Your task to perform on an android device: change your default location settings in chrome Image 0: 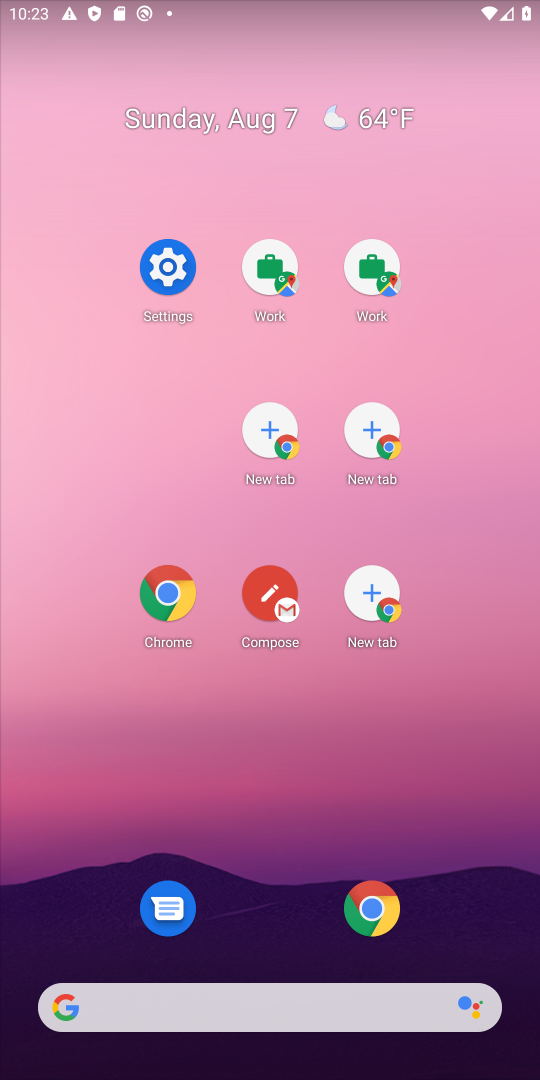
Step 0: drag from (278, 874) to (303, 430)
Your task to perform on an android device: change your default location settings in chrome Image 1: 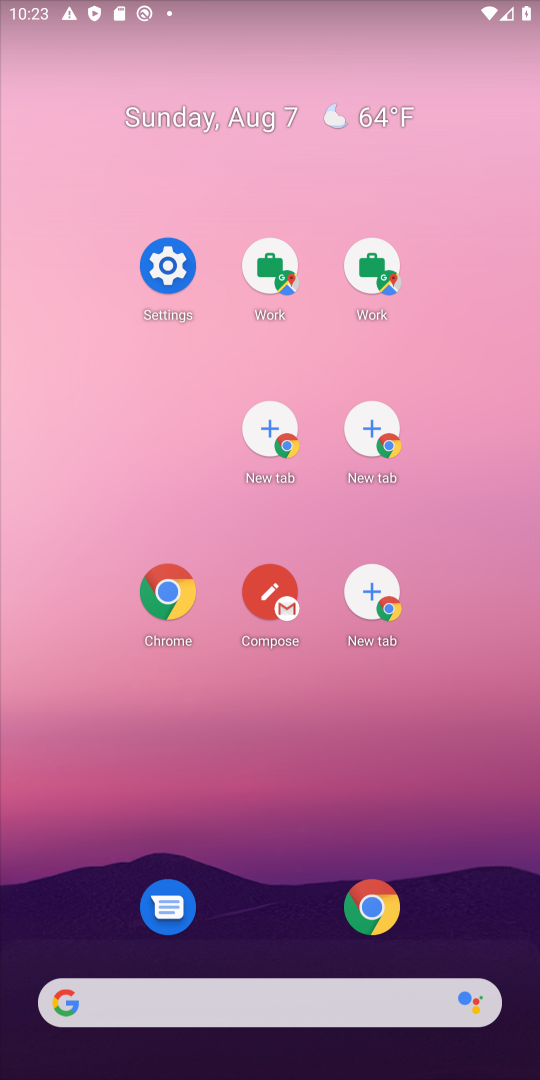
Step 1: drag from (319, 871) to (266, 380)
Your task to perform on an android device: change your default location settings in chrome Image 2: 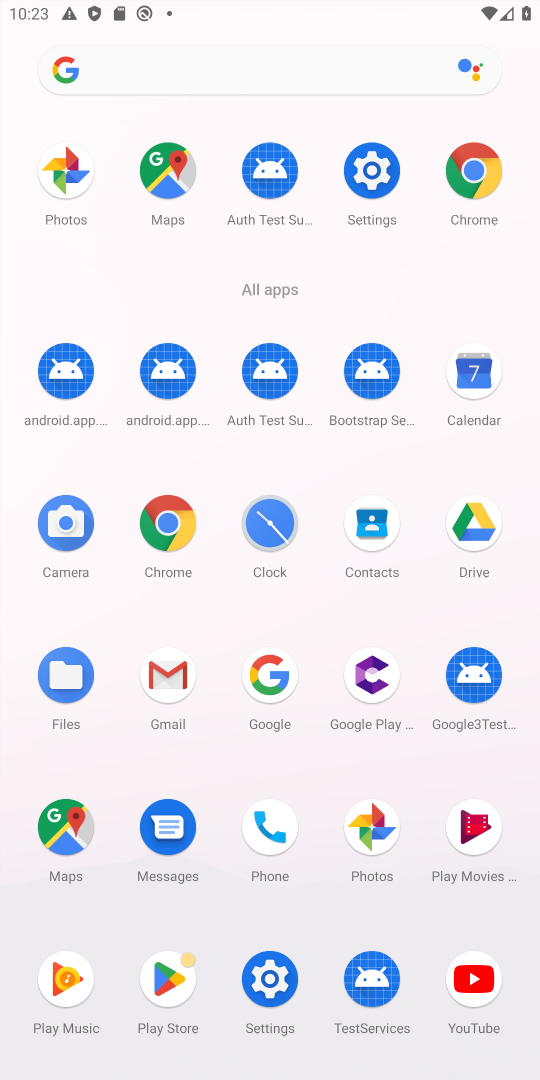
Step 2: click (147, 503)
Your task to perform on an android device: change your default location settings in chrome Image 3: 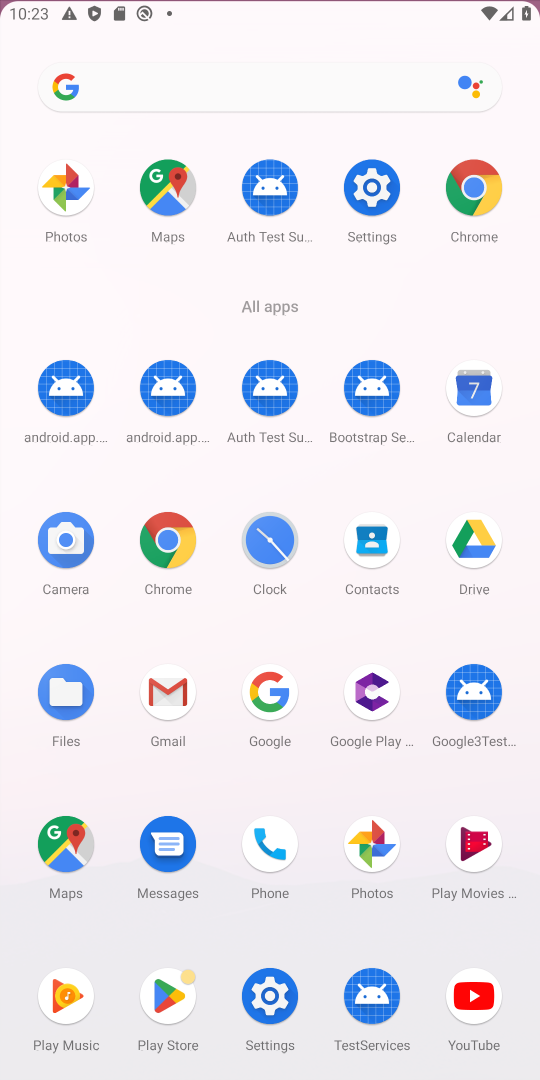
Step 3: click (172, 529)
Your task to perform on an android device: change your default location settings in chrome Image 4: 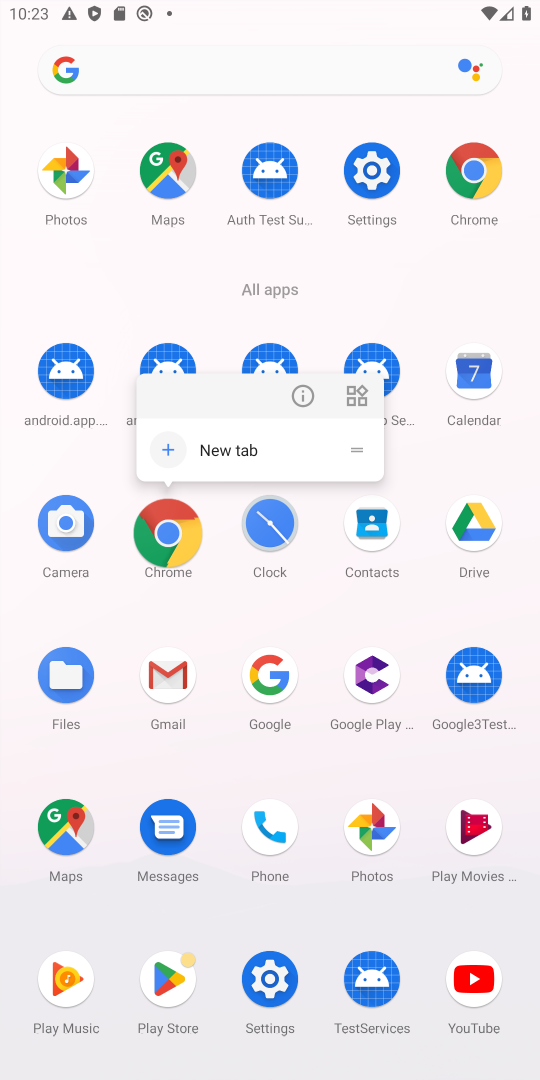
Step 4: click (182, 534)
Your task to perform on an android device: change your default location settings in chrome Image 5: 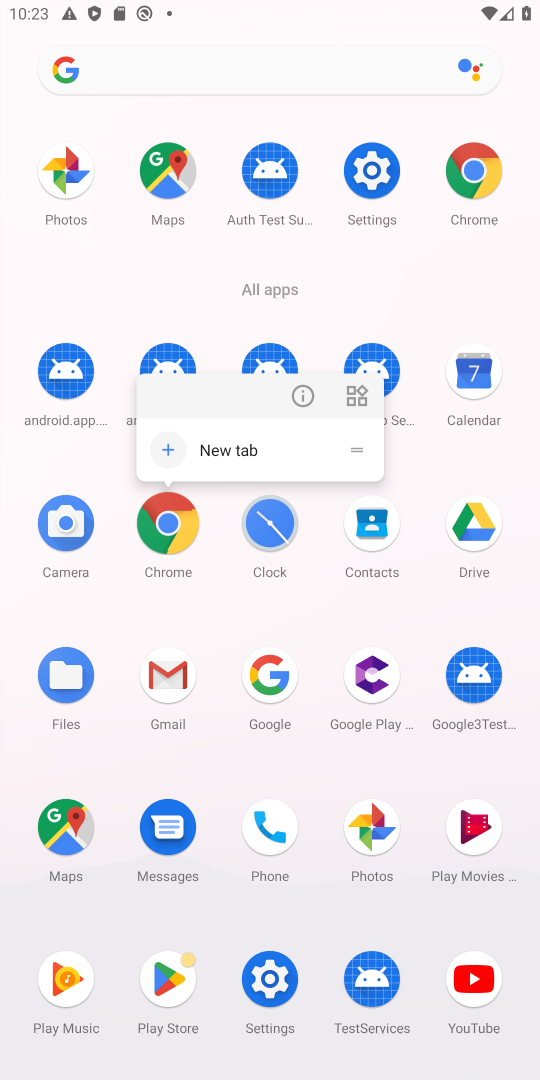
Step 5: click (232, 449)
Your task to perform on an android device: change your default location settings in chrome Image 6: 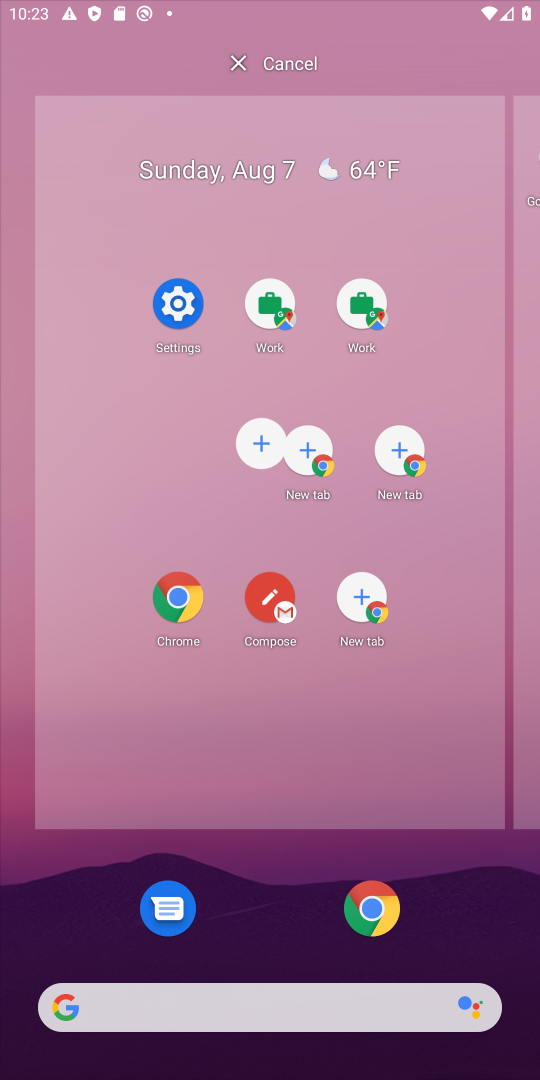
Step 6: click (167, 595)
Your task to perform on an android device: change your default location settings in chrome Image 7: 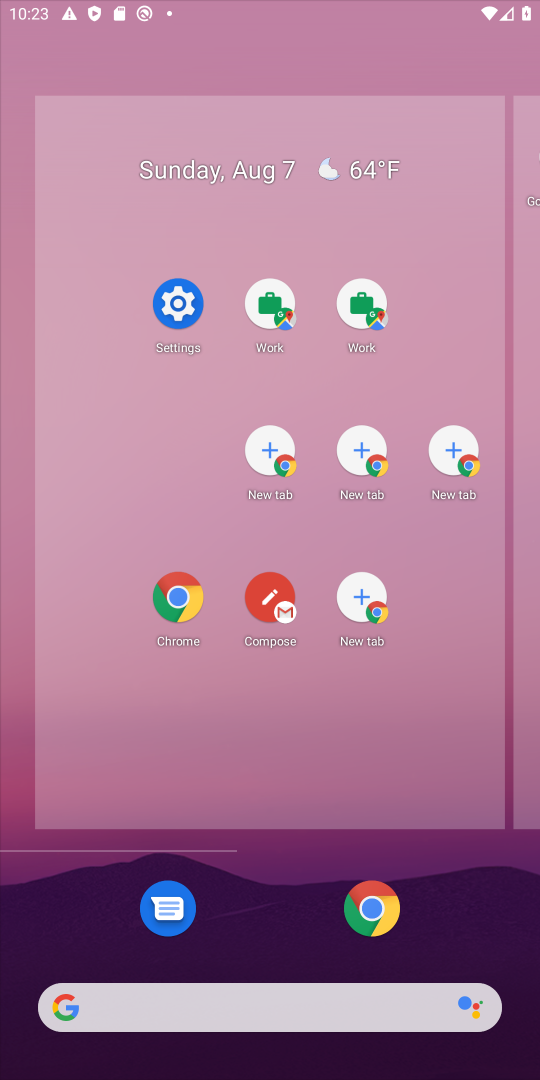
Step 7: click (247, 51)
Your task to perform on an android device: change your default location settings in chrome Image 8: 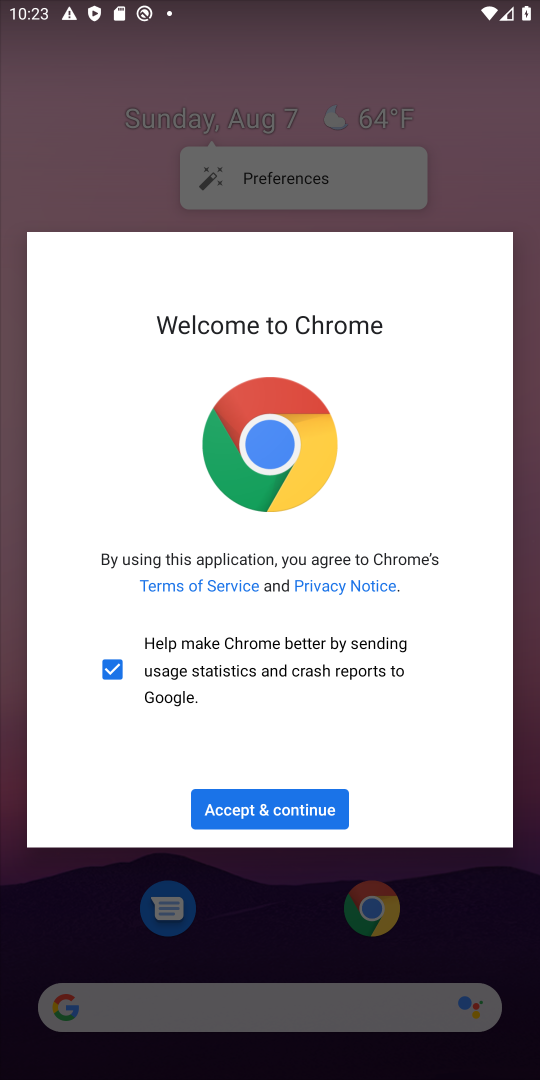
Step 8: click (269, 809)
Your task to perform on an android device: change your default location settings in chrome Image 9: 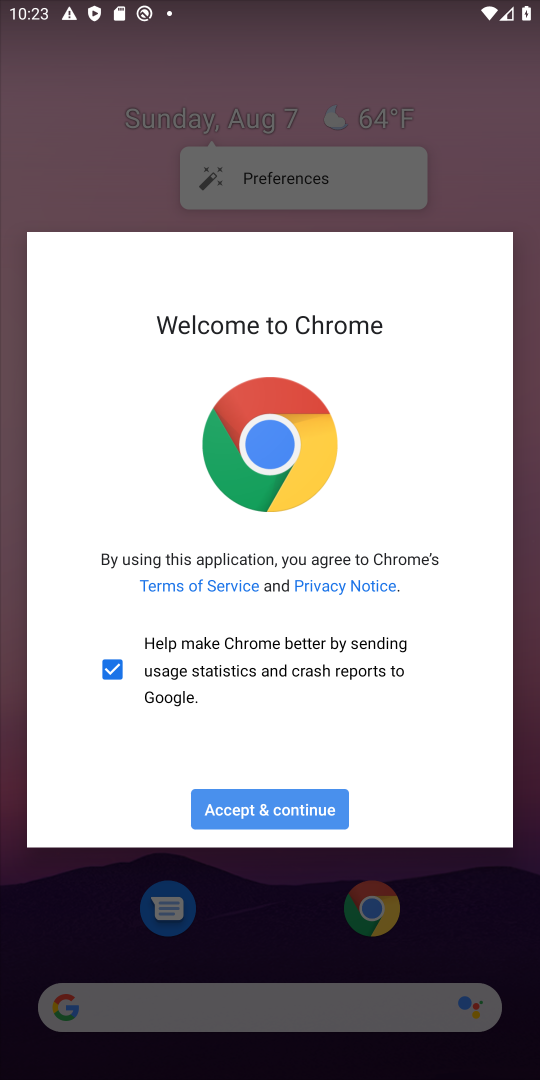
Step 9: click (266, 808)
Your task to perform on an android device: change your default location settings in chrome Image 10: 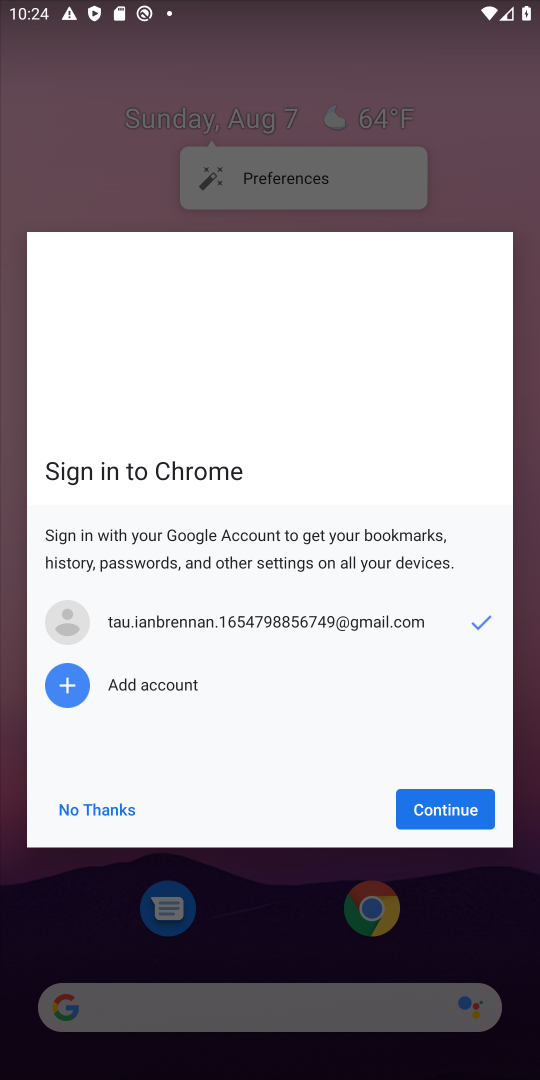
Step 10: click (84, 807)
Your task to perform on an android device: change your default location settings in chrome Image 11: 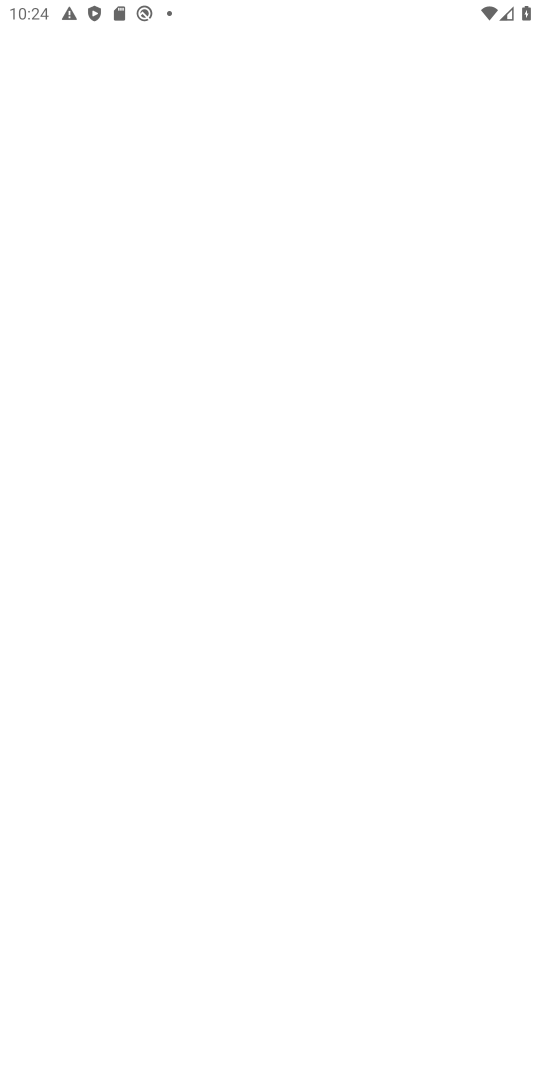
Step 11: click (78, 806)
Your task to perform on an android device: change your default location settings in chrome Image 12: 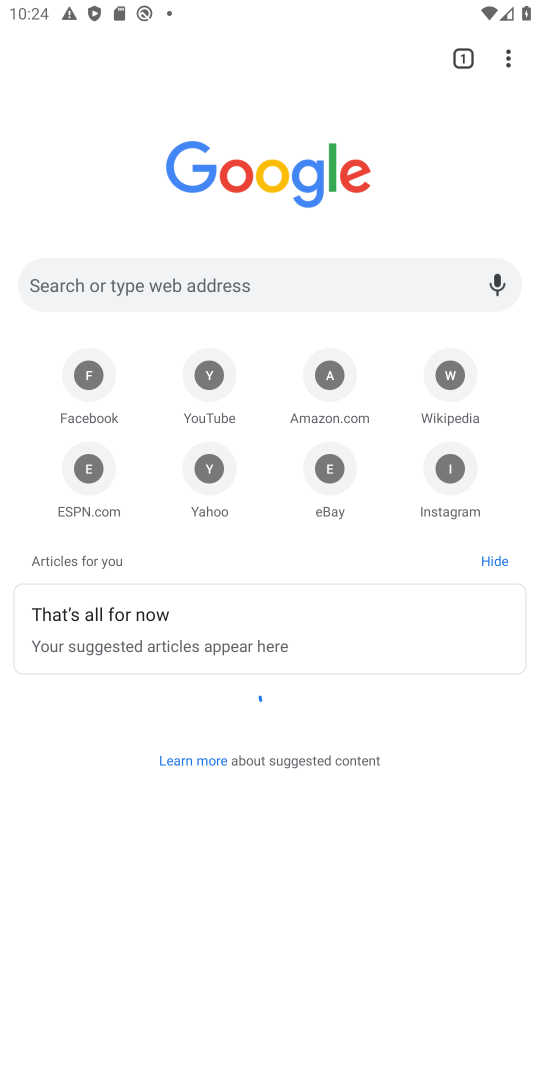
Step 12: drag from (509, 48) to (350, 823)
Your task to perform on an android device: change your default location settings in chrome Image 13: 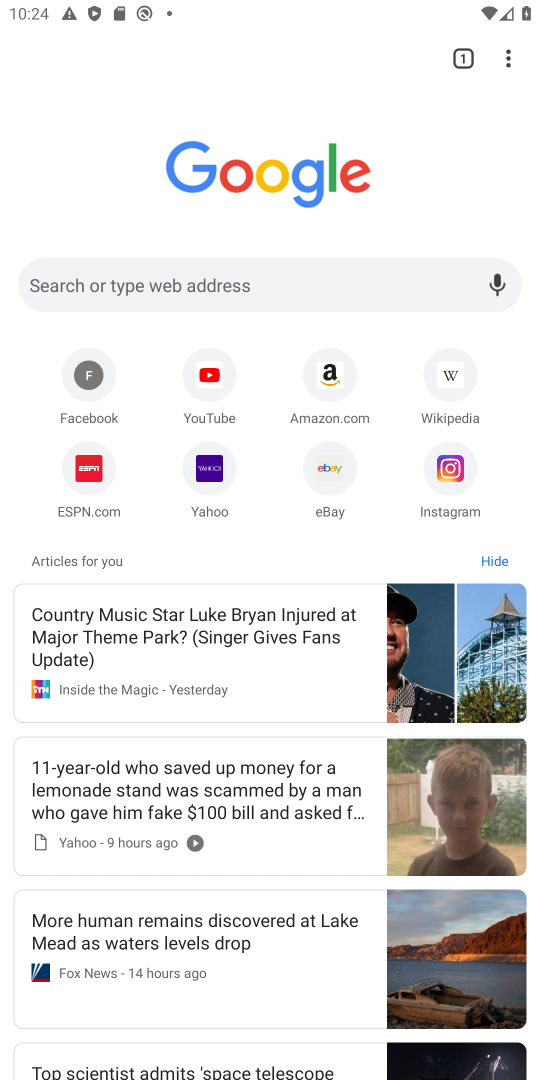
Step 13: drag from (504, 58) to (388, 393)
Your task to perform on an android device: change your default location settings in chrome Image 14: 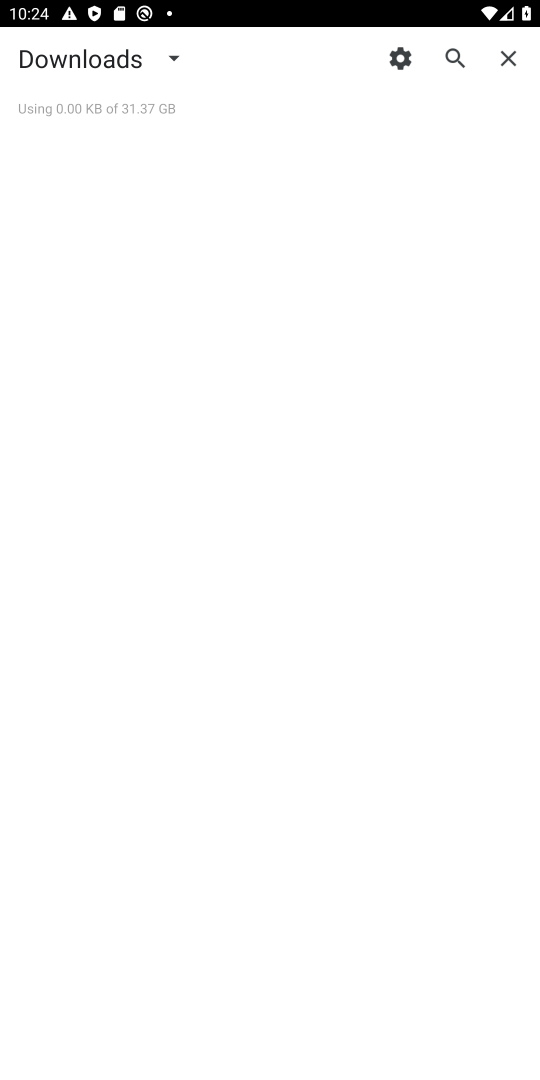
Step 14: press back button
Your task to perform on an android device: change your default location settings in chrome Image 15: 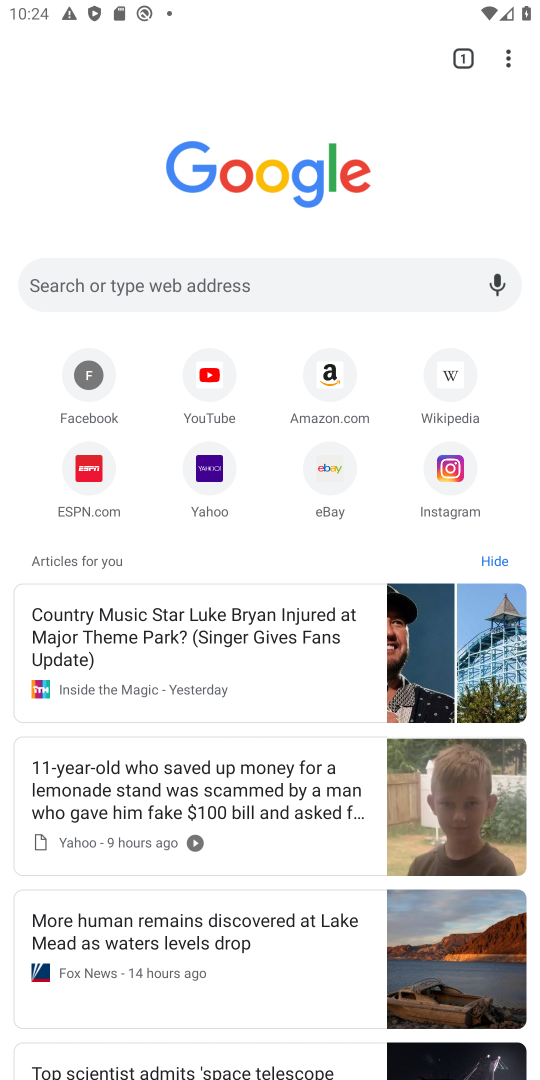
Step 15: click (515, 47)
Your task to perform on an android device: change your default location settings in chrome Image 16: 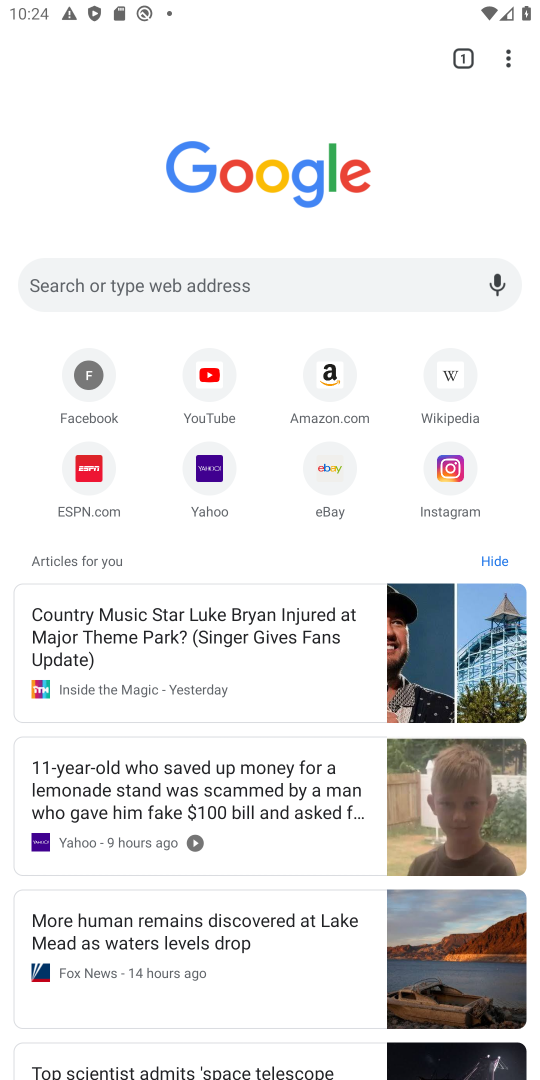
Step 16: click (497, 48)
Your task to perform on an android device: change your default location settings in chrome Image 17: 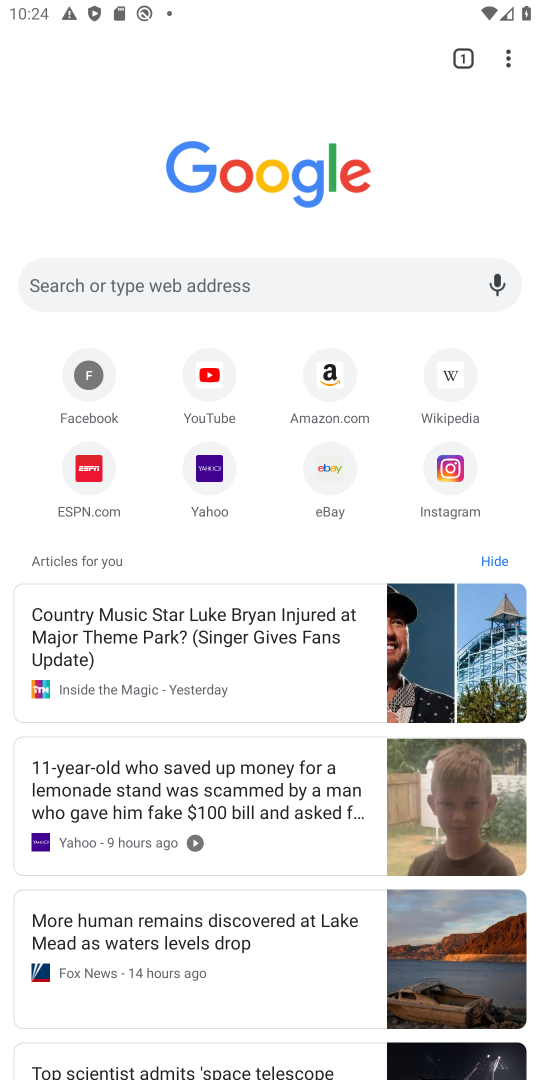
Step 17: drag from (505, 59) to (289, 493)
Your task to perform on an android device: change your default location settings in chrome Image 18: 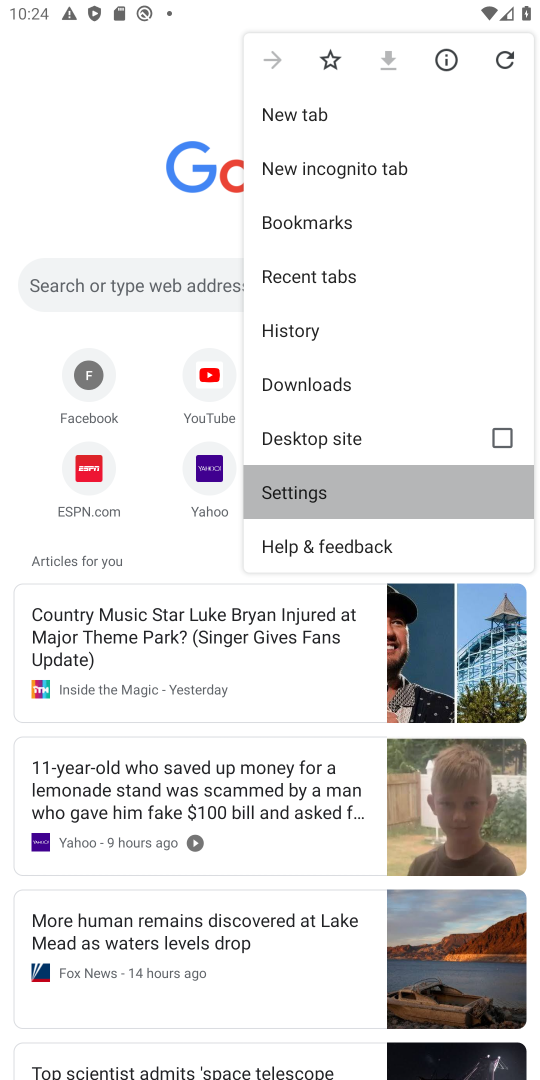
Step 18: click (294, 493)
Your task to perform on an android device: change your default location settings in chrome Image 19: 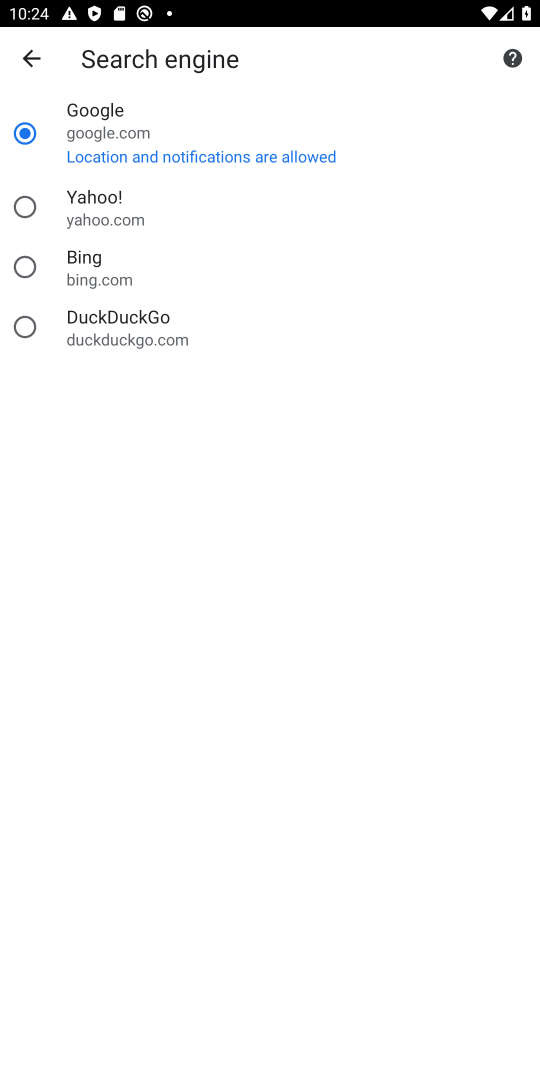
Step 19: click (30, 48)
Your task to perform on an android device: change your default location settings in chrome Image 20: 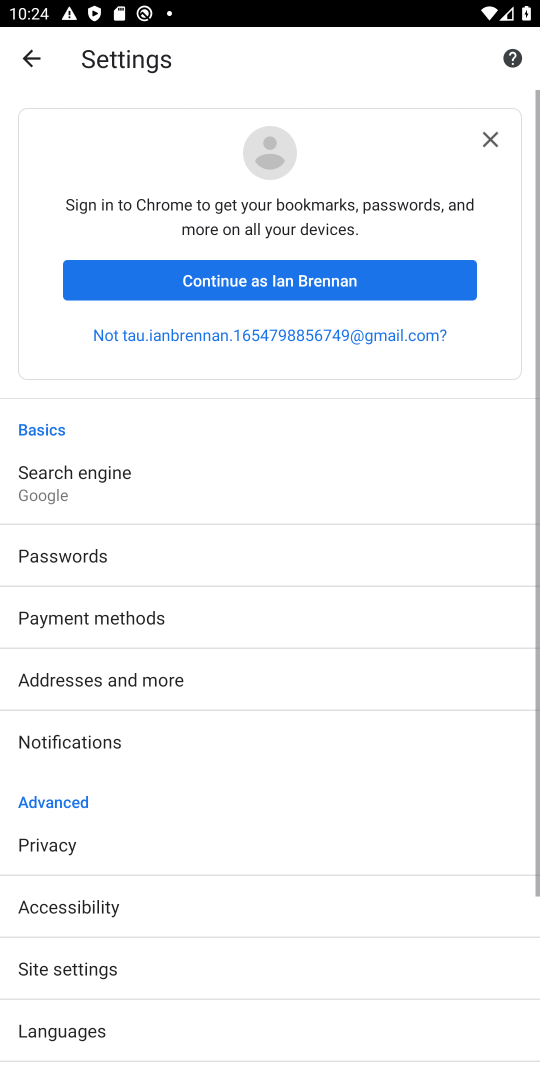
Step 20: drag from (200, 813) to (194, 291)
Your task to perform on an android device: change your default location settings in chrome Image 21: 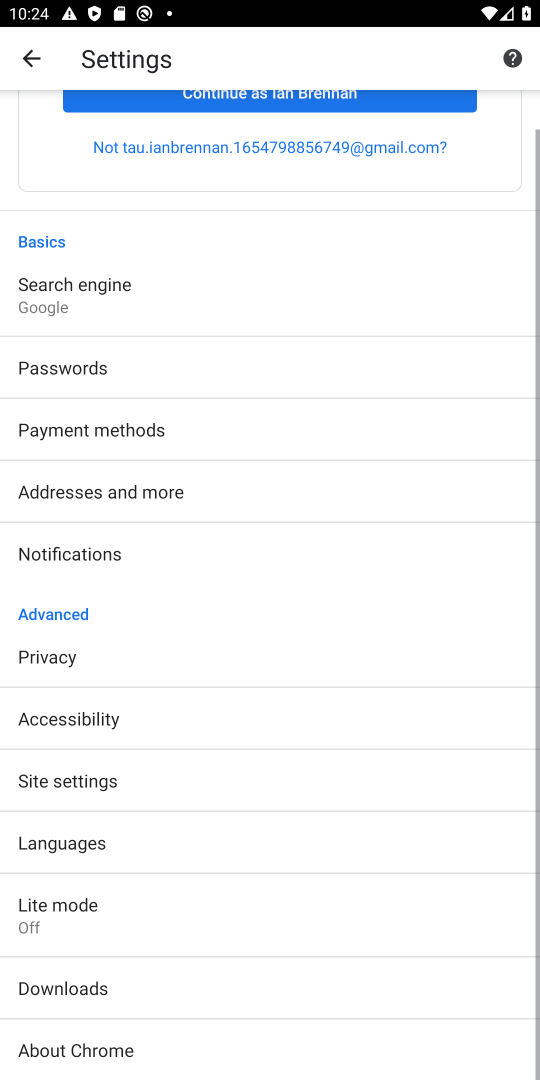
Step 21: drag from (253, 756) to (257, 477)
Your task to perform on an android device: change your default location settings in chrome Image 22: 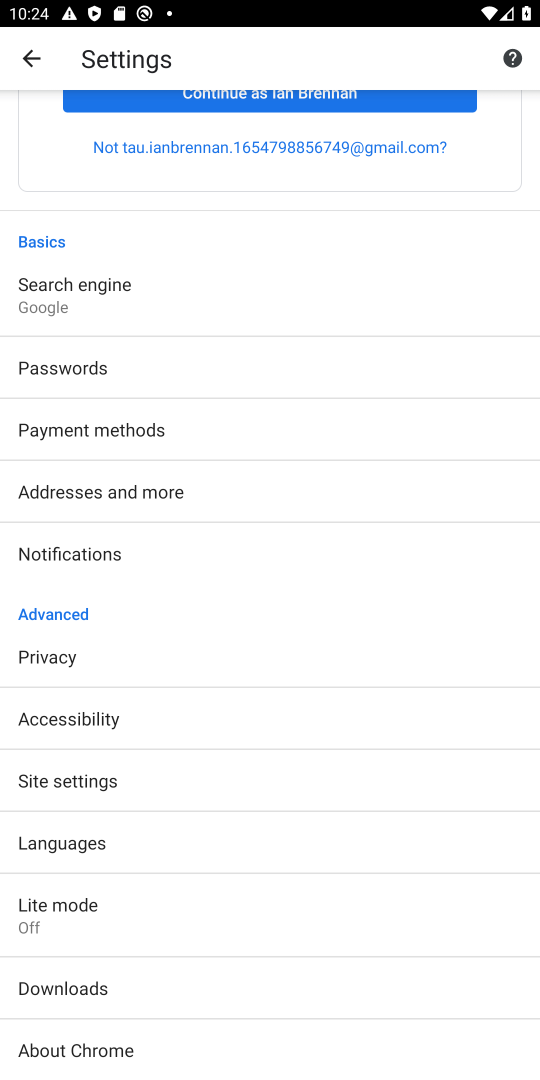
Step 22: click (80, 789)
Your task to perform on an android device: change your default location settings in chrome Image 23: 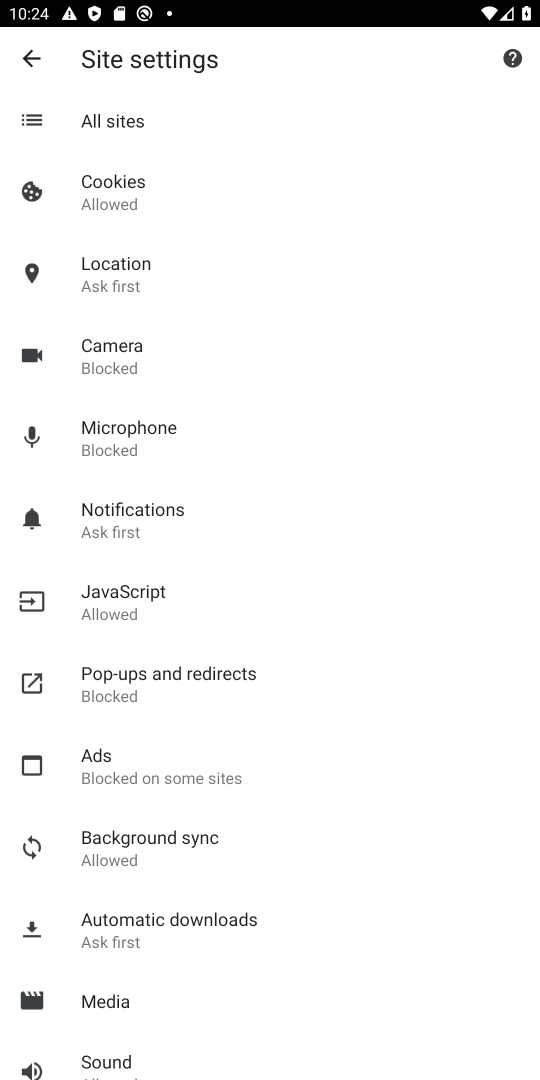
Step 23: click (122, 281)
Your task to perform on an android device: change your default location settings in chrome Image 24: 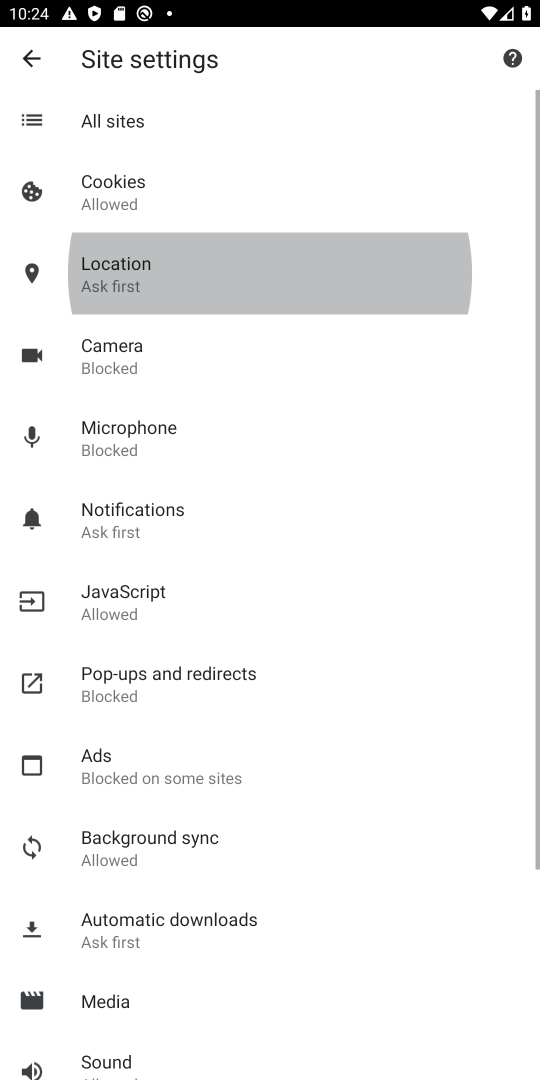
Step 24: click (122, 281)
Your task to perform on an android device: change your default location settings in chrome Image 25: 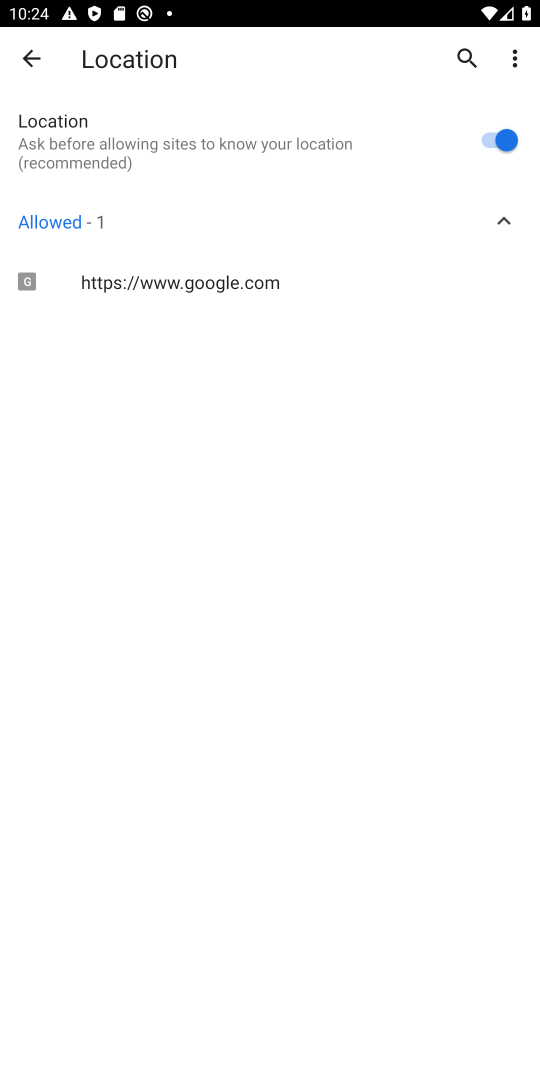
Step 25: click (500, 138)
Your task to perform on an android device: change your default location settings in chrome Image 26: 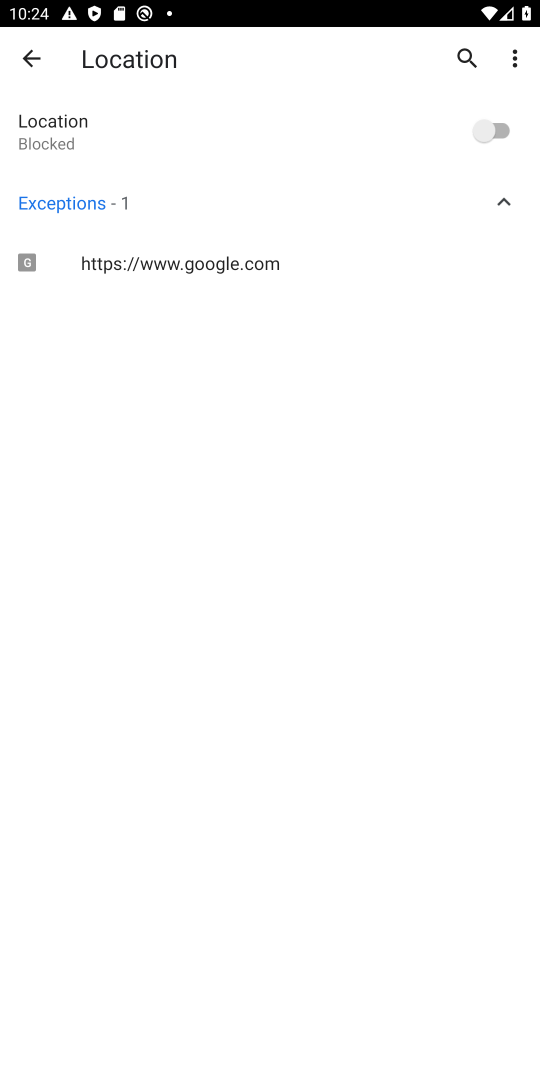
Step 26: task complete